Your task to perform on an android device: delete browsing data in the chrome app Image 0: 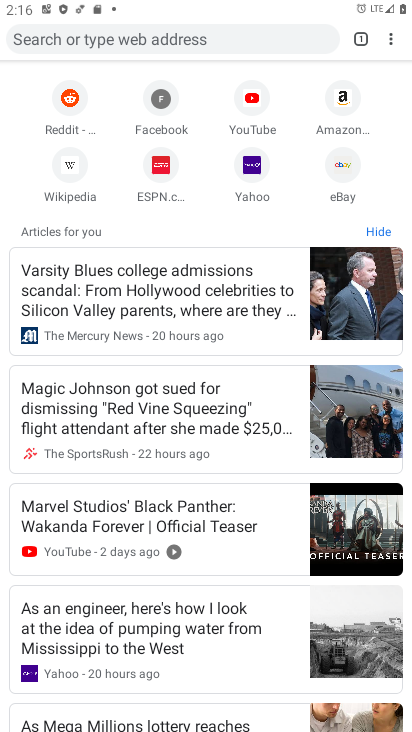
Step 0: press home button
Your task to perform on an android device: delete browsing data in the chrome app Image 1: 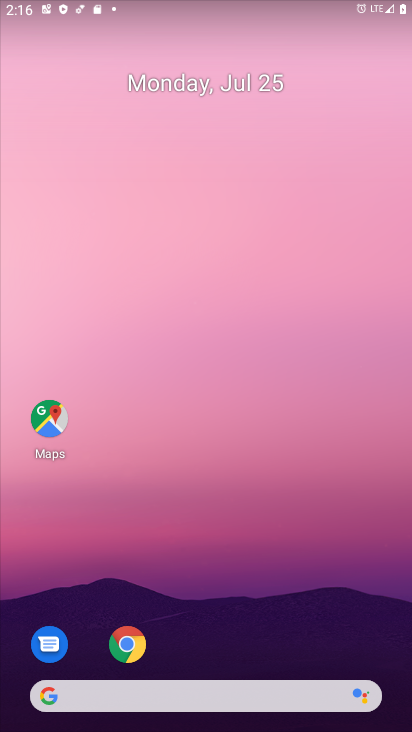
Step 1: drag from (345, 650) to (230, 5)
Your task to perform on an android device: delete browsing data in the chrome app Image 2: 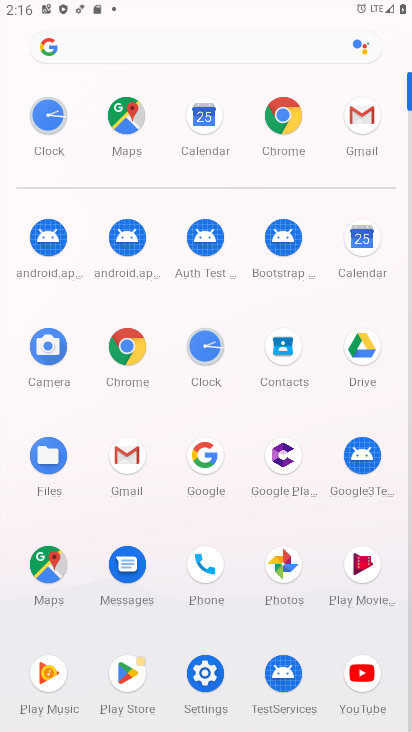
Step 2: click (128, 324)
Your task to perform on an android device: delete browsing data in the chrome app Image 3: 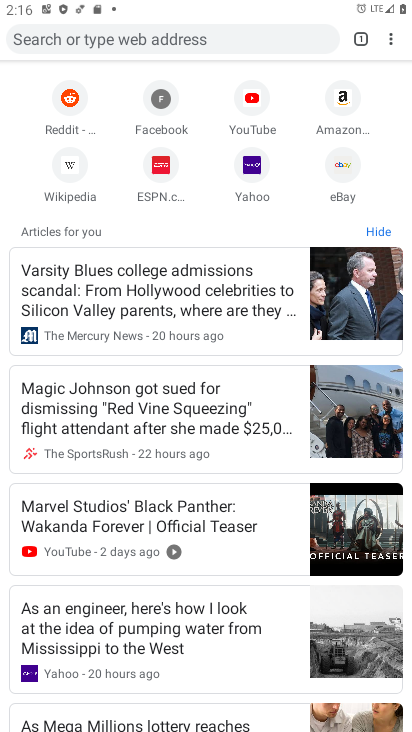
Step 3: click (395, 37)
Your task to perform on an android device: delete browsing data in the chrome app Image 4: 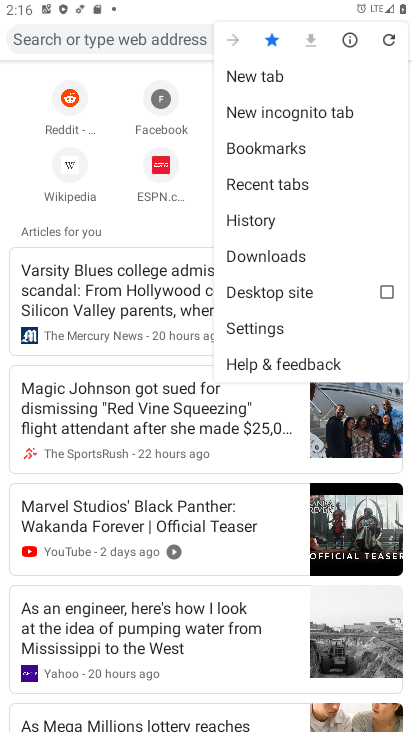
Step 4: click (289, 224)
Your task to perform on an android device: delete browsing data in the chrome app Image 5: 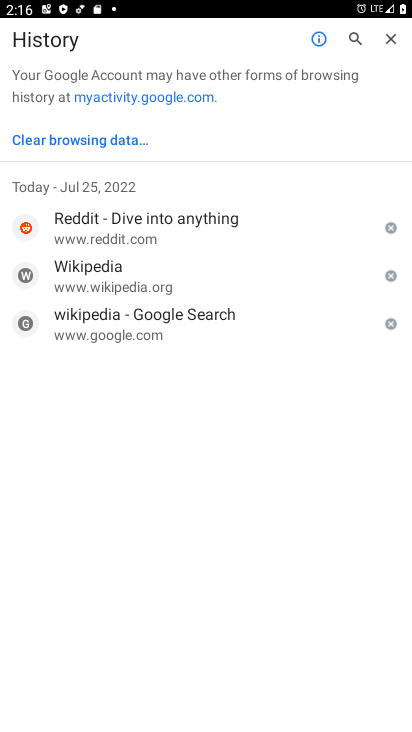
Step 5: click (46, 146)
Your task to perform on an android device: delete browsing data in the chrome app Image 6: 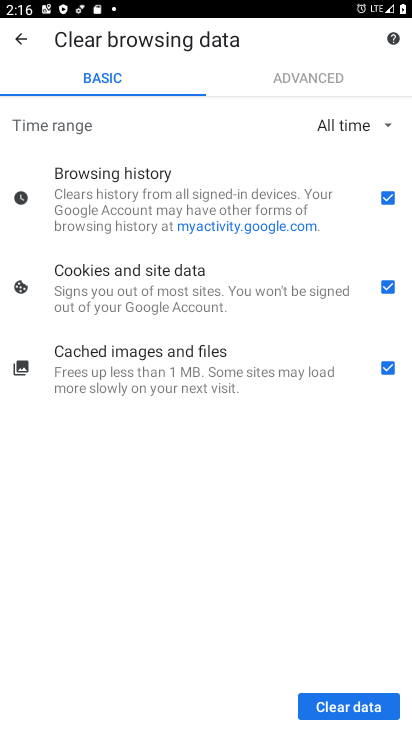
Step 6: click (371, 698)
Your task to perform on an android device: delete browsing data in the chrome app Image 7: 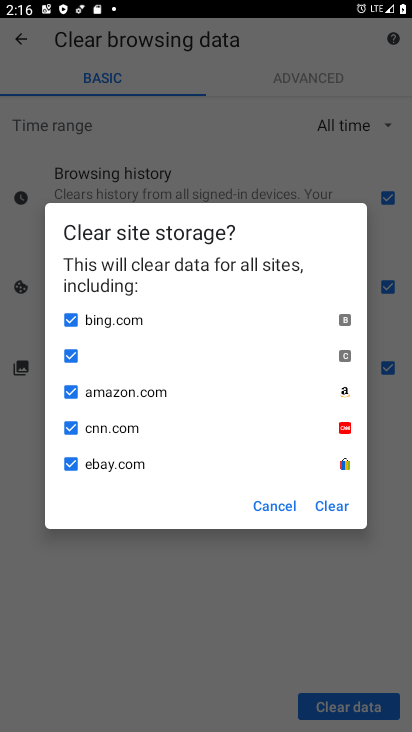
Step 7: click (322, 515)
Your task to perform on an android device: delete browsing data in the chrome app Image 8: 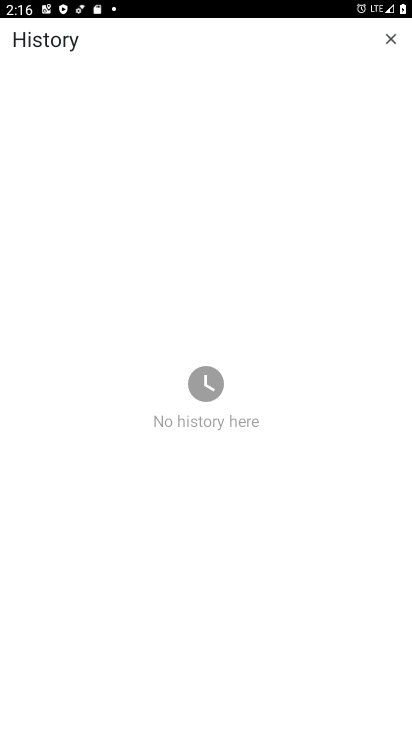
Step 8: task complete